Your task to perform on an android device: Go to battery settings Image 0: 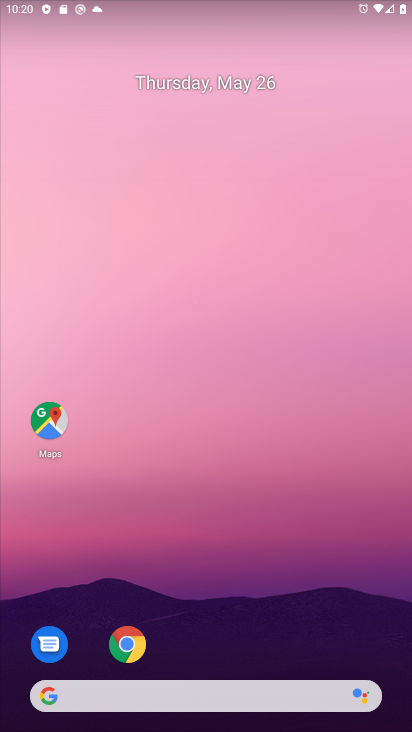
Step 0: drag from (263, 651) to (288, 174)
Your task to perform on an android device: Go to battery settings Image 1: 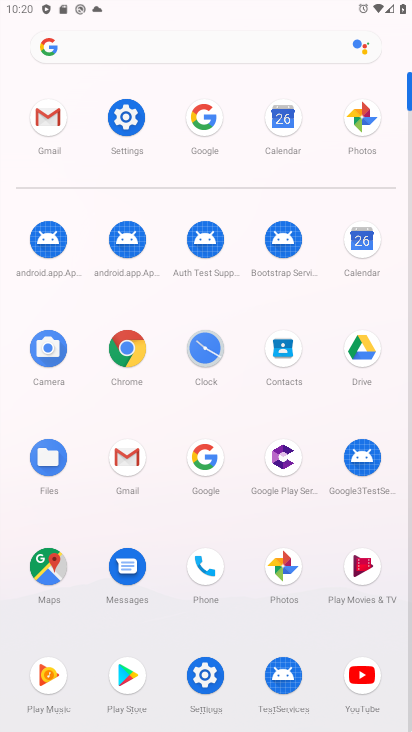
Step 1: click (139, 115)
Your task to perform on an android device: Go to battery settings Image 2: 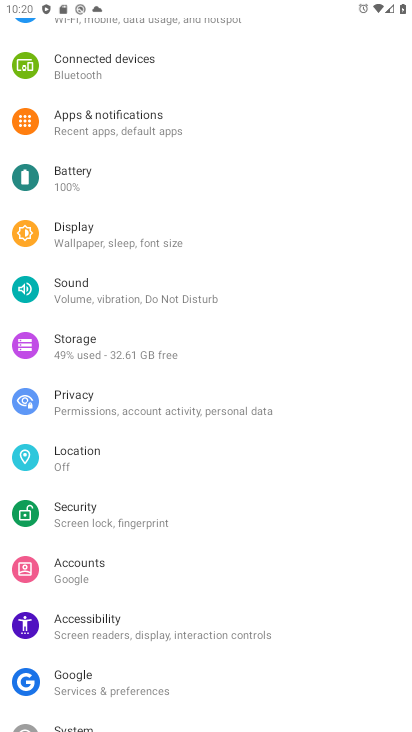
Step 2: click (91, 184)
Your task to perform on an android device: Go to battery settings Image 3: 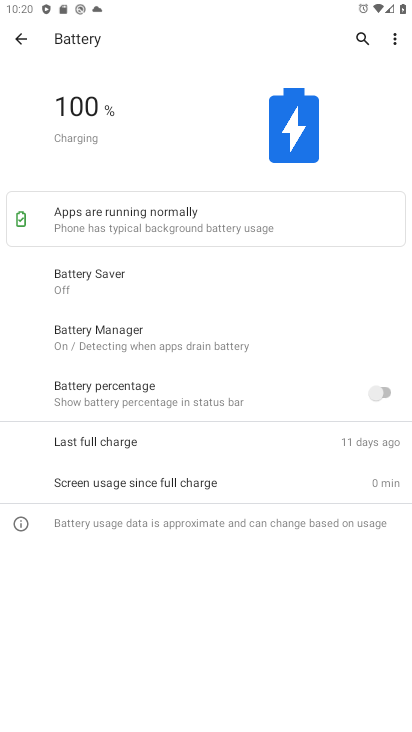
Step 3: task complete